Your task to perform on an android device: Open Chrome and go to settings Image 0: 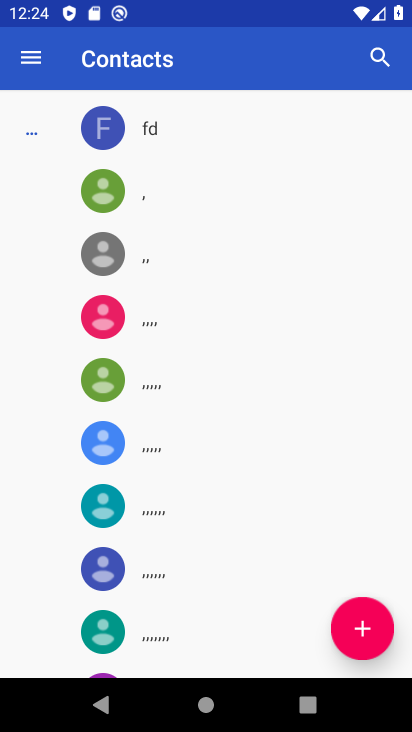
Step 0: press home button
Your task to perform on an android device: Open Chrome and go to settings Image 1: 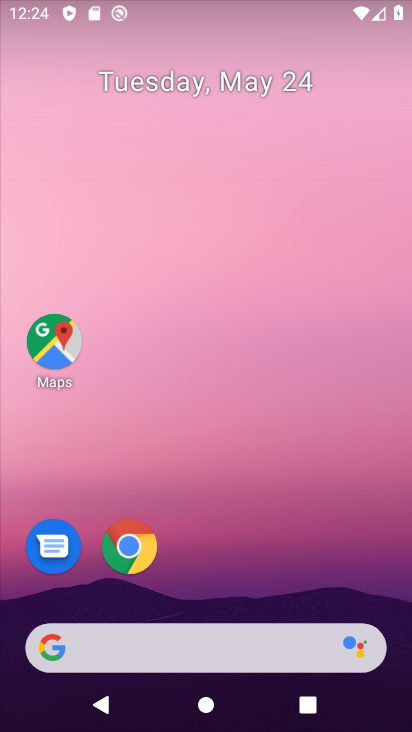
Step 1: drag from (273, 586) to (269, 13)
Your task to perform on an android device: Open Chrome and go to settings Image 2: 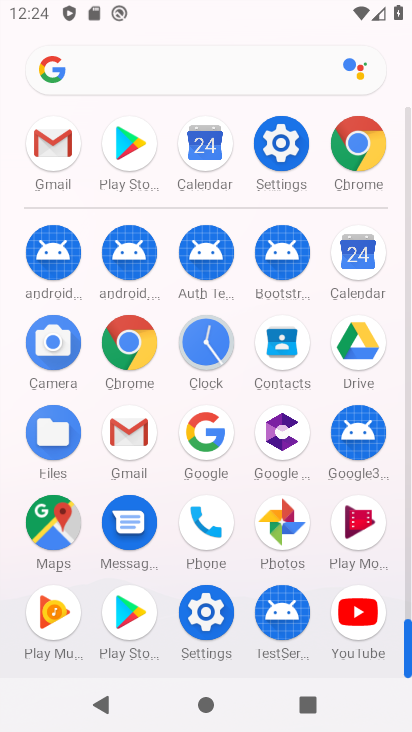
Step 2: click (116, 352)
Your task to perform on an android device: Open Chrome and go to settings Image 3: 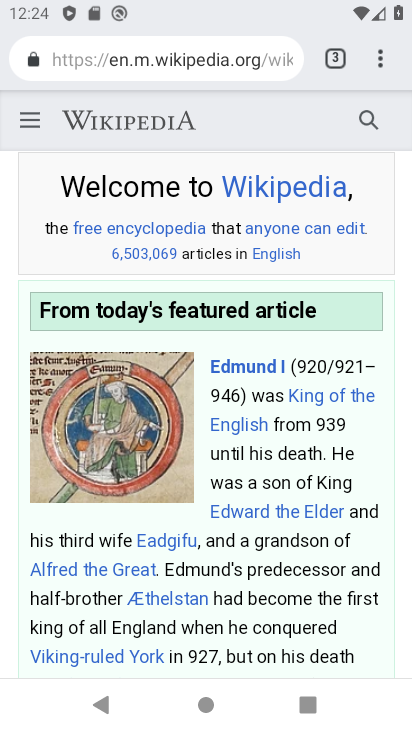
Step 3: click (373, 57)
Your task to perform on an android device: Open Chrome and go to settings Image 4: 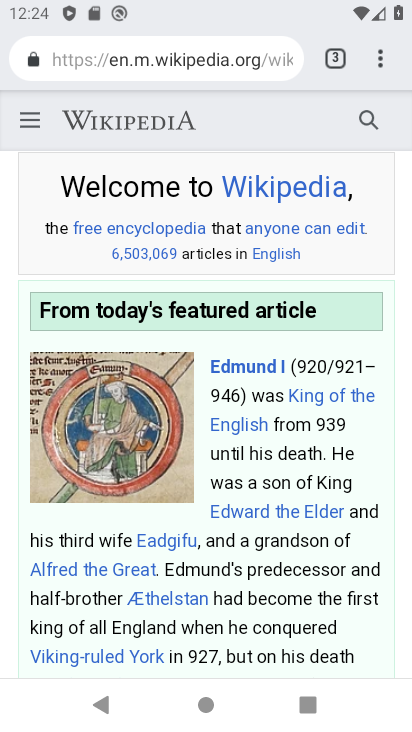
Step 4: task complete